Your task to perform on an android device: toggle airplane mode Image 0: 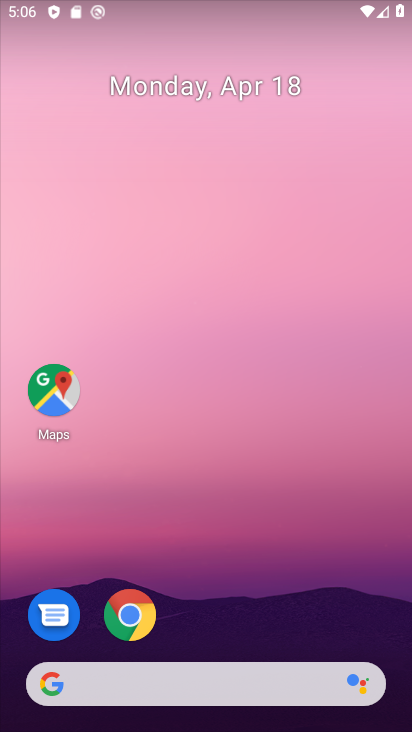
Step 0: drag from (281, 19) to (236, 257)
Your task to perform on an android device: toggle airplane mode Image 1: 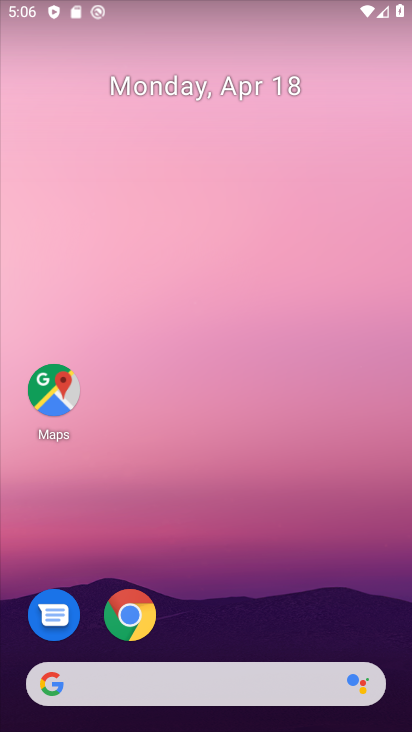
Step 1: drag from (222, 4) to (169, 611)
Your task to perform on an android device: toggle airplane mode Image 2: 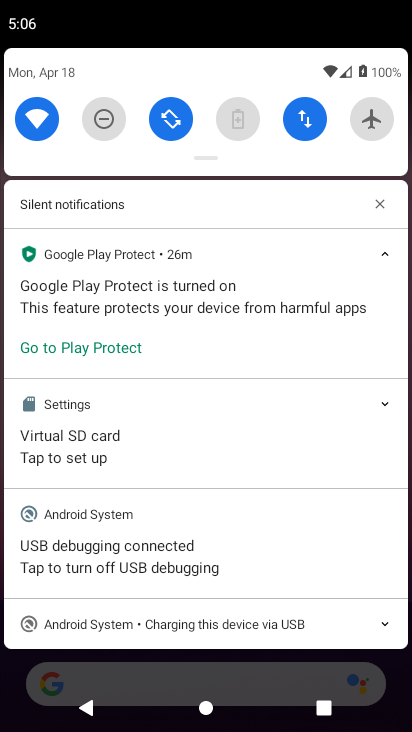
Step 2: click (373, 122)
Your task to perform on an android device: toggle airplane mode Image 3: 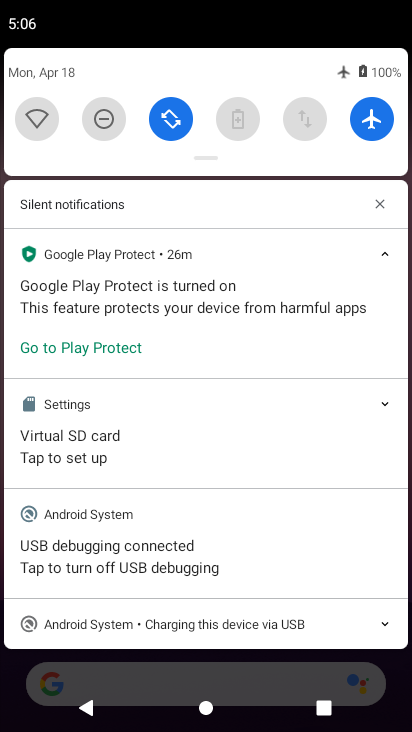
Step 3: task complete